Your task to perform on an android device: Open display settings Image 0: 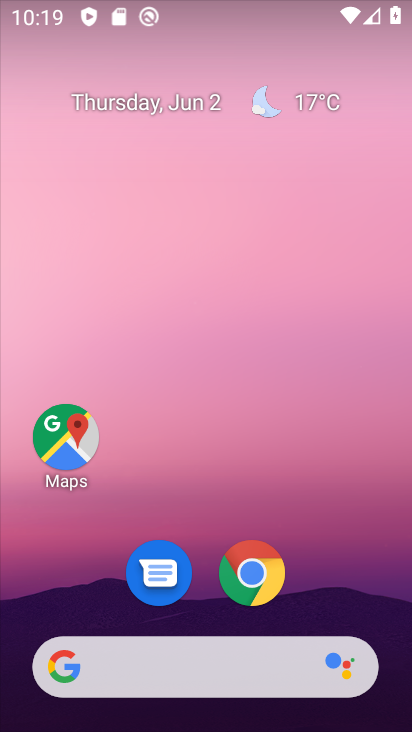
Step 0: drag from (237, 657) to (315, 18)
Your task to perform on an android device: Open display settings Image 1: 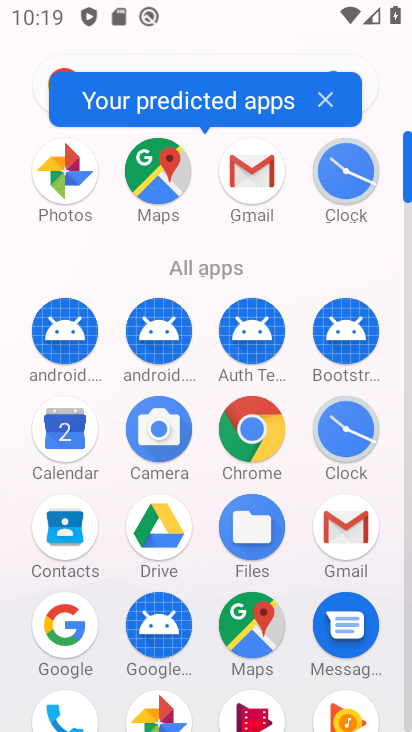
Step 1: drag from (308, 580) to (303, 121)
Your task to perform on an android device: Open display settings Image 2: 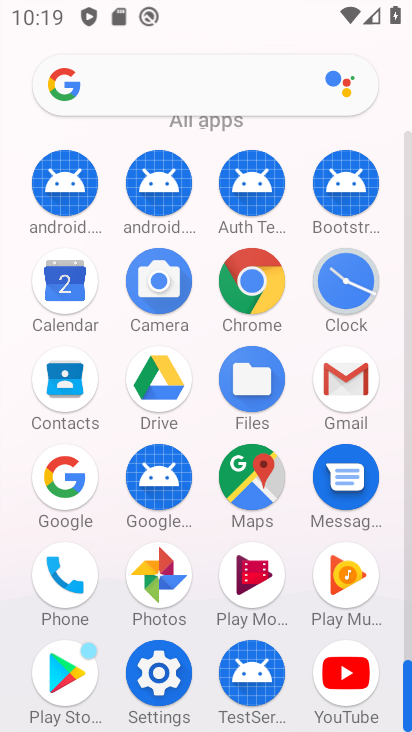
Step 2: click (176, 658)
Your task to perform on an android device: Open display settings Image 3: 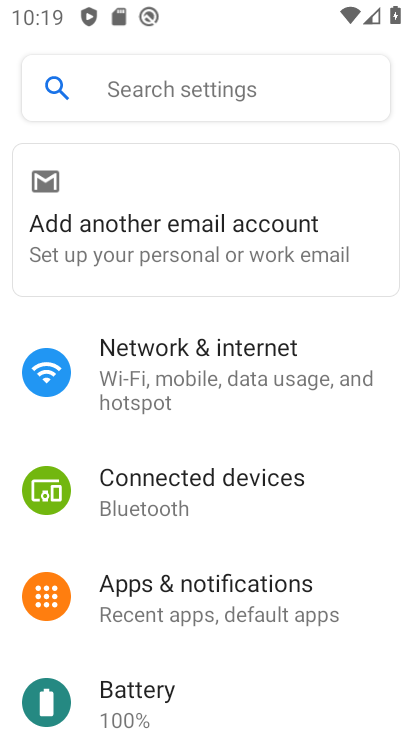
Step 3: drag from (235, 693) to (221, 148)
Your task to perform on an android device: Open display settings Image 4: 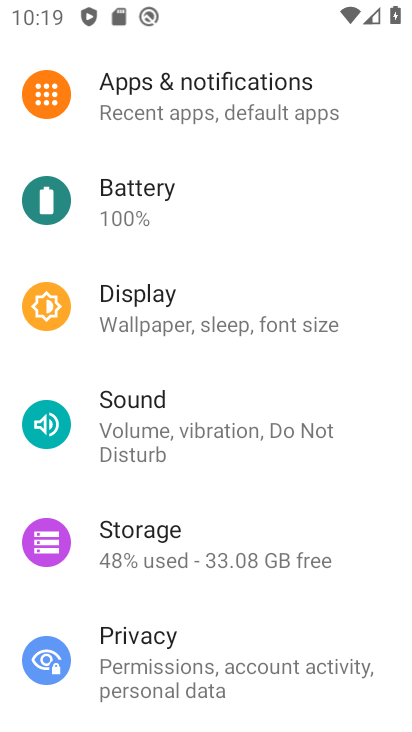
Step 4: click (187, 309)
Your task to perform on an android device: Open display settings Image 5: 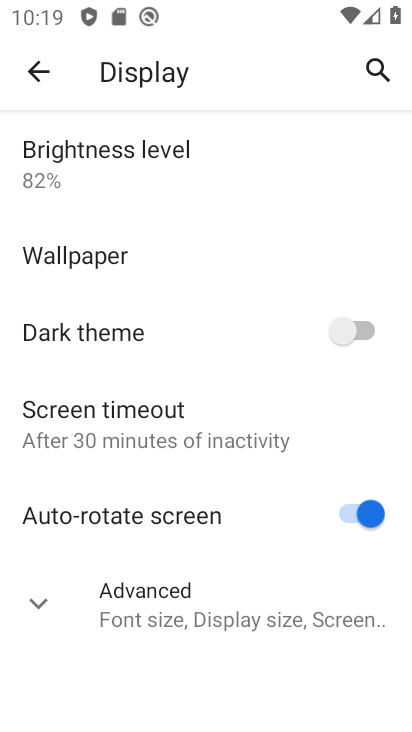
Step 5: task complete